Your task to perform on an android device: change notification settings in the gmail app Image 0: 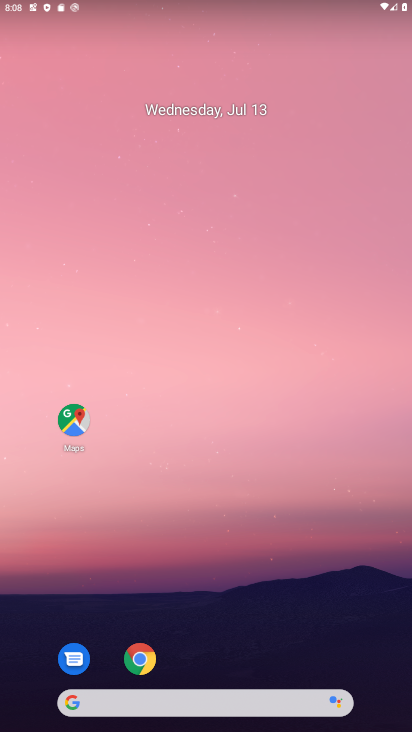
Step 0: drag from (205, 640) to (173, 185)
Your task to perform on an android device: change notification settings in the gmail app Image 1: 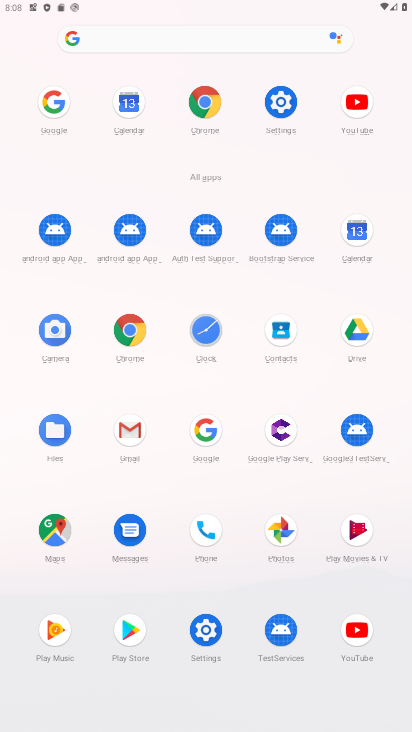
Step 1: click (127, 418)
Your task to perform on an android device: change notification settings in the gmail app Image 2: 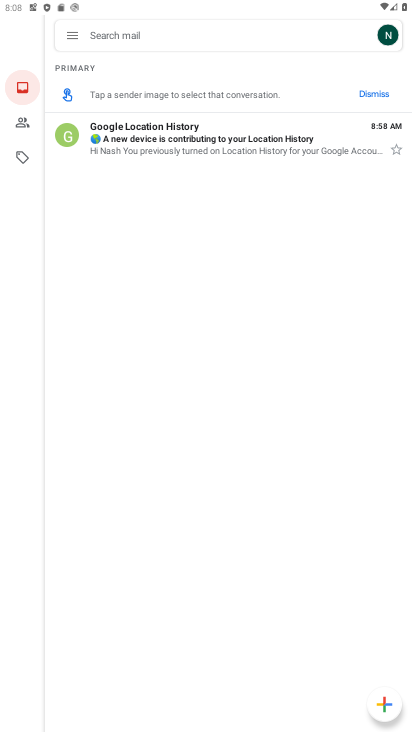
Step 2: click (70, 29)
Your task to perform on an android device: change notification settings in the gmail app Image 3: 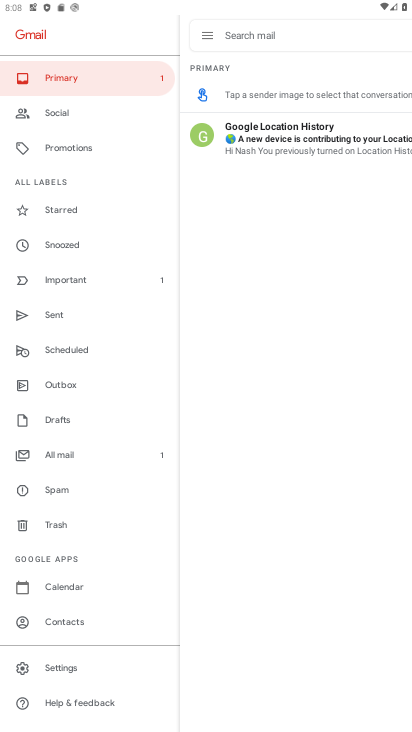
Step 3: click (73, 662)
Your task to perform on an android device: change notification settings in the gmail app Image 4: 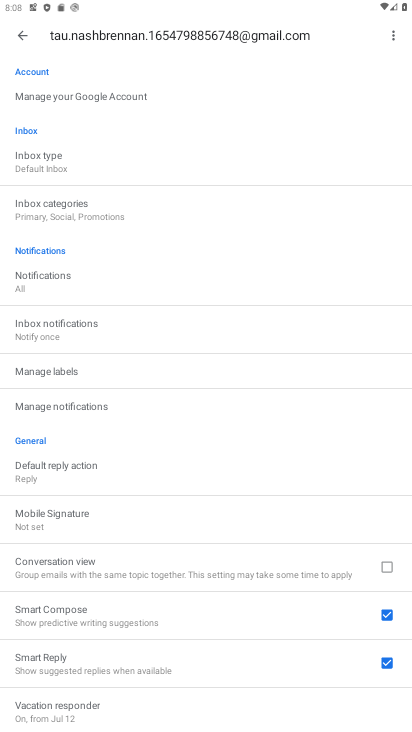
Step 4: click (99, 412)
Your task to perform on an android device: change notification settings in the gmail app Image 5: 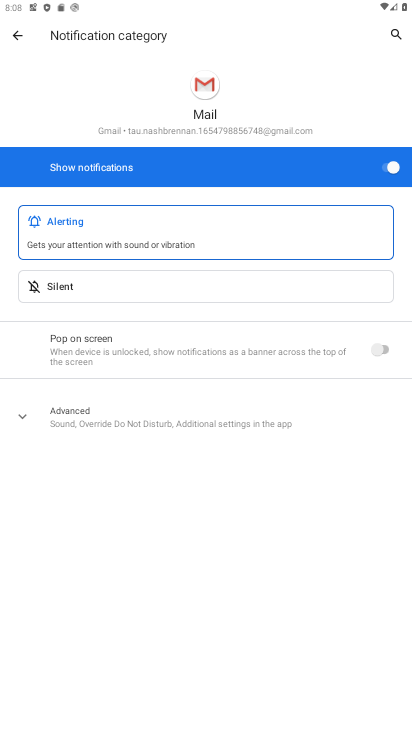
Step 5: click (376, 170)
Your task to perform on an android device: change notification settings in the gmail app Image 6: 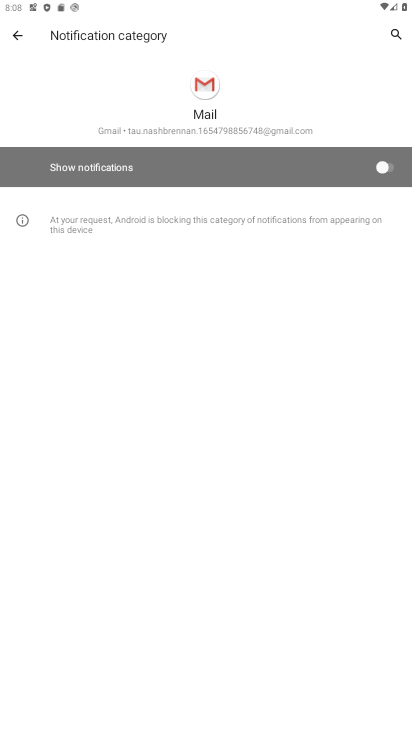
Step 6: task complete